Your task to perform on an android device: open a bookmark in the chrome app Image 0: 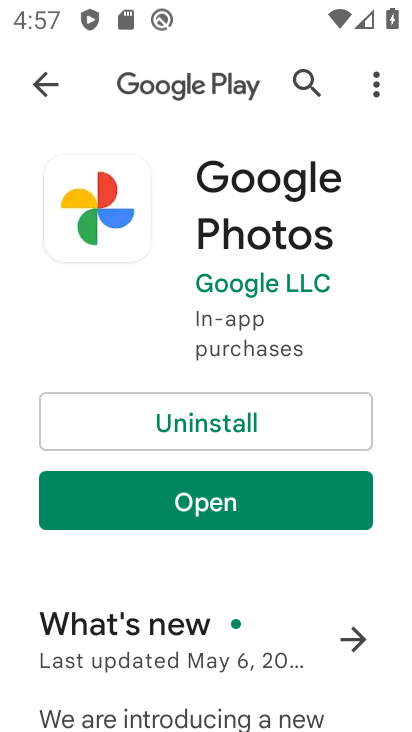
Step 0: press back button
Your task to perform on an android device: open a bookmark in the chrome app Image 1: 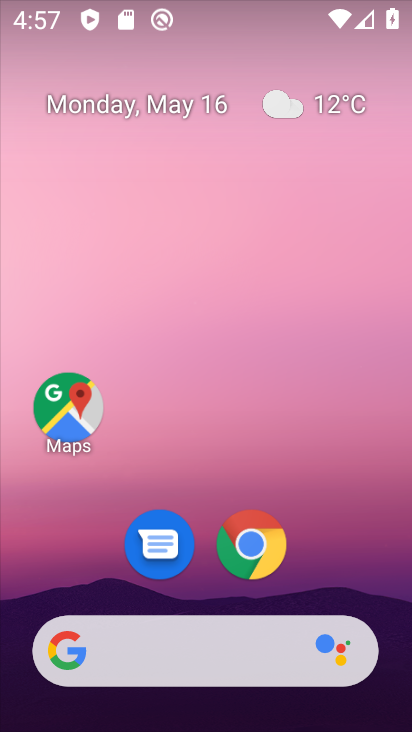
Step 1: click (252, 543)
Your task to perform on an android device: open a bookmark in the chrome app Image 2: 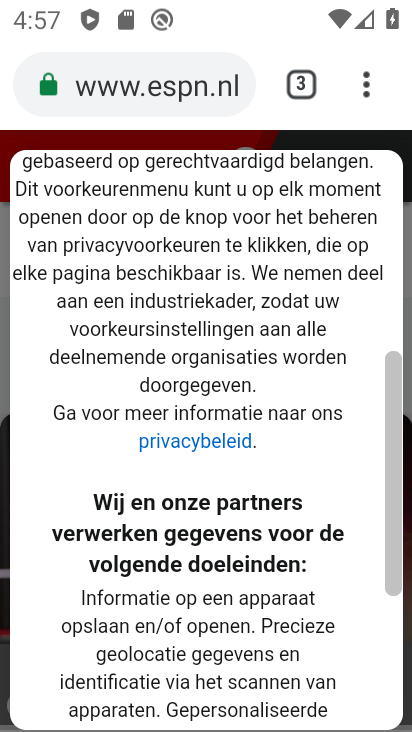
Step 2: click (367, 85)
Your task to perform on an android device: open a bookmark in the chrome app Image 3: 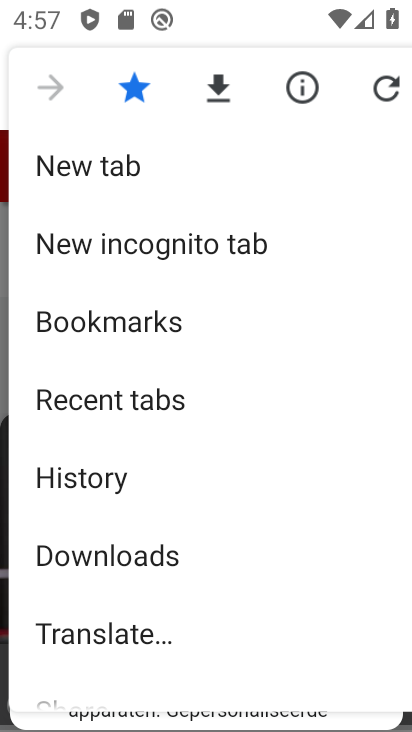
Step 3: click (144, 324)
Your task to perform on an android device: open a bookmark in the chrome app Image 4: 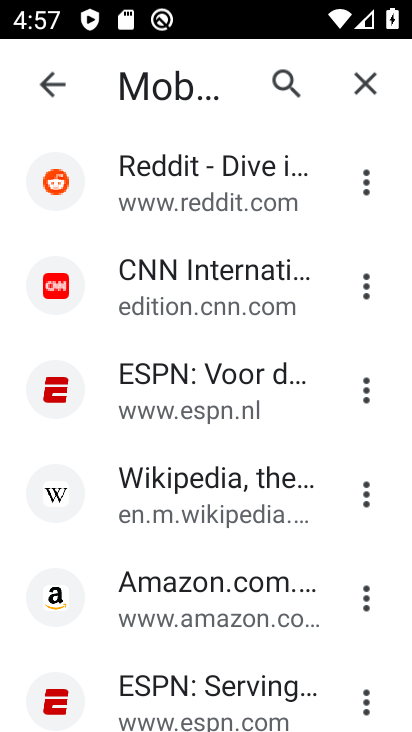
Step 4: task complete